Your task to perform on an android device: Go to internet settings Image 0: 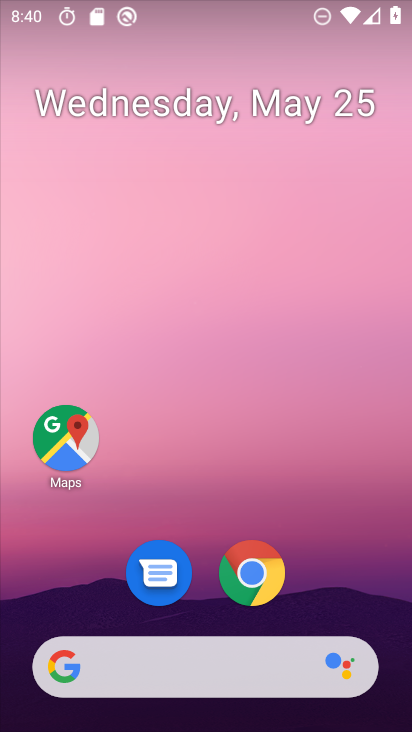
Step 0: drag from (394, 677) to (344, 157)
Your task to perform on an android device: Go to internet settings Image 1: 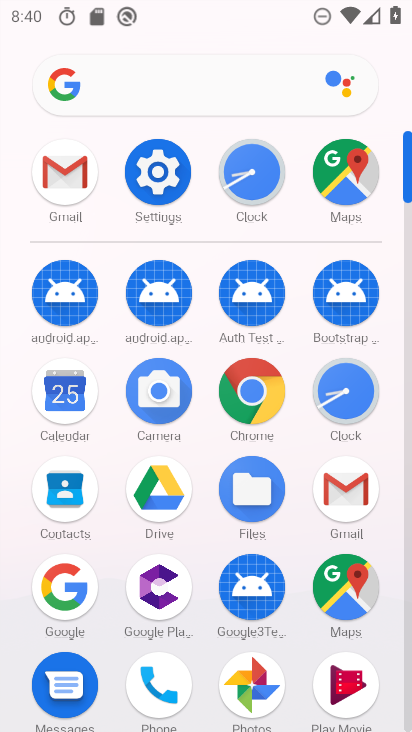
Step 1: click (151, 179)
Your task to perform on an android device: Go to internet settings Image 2: 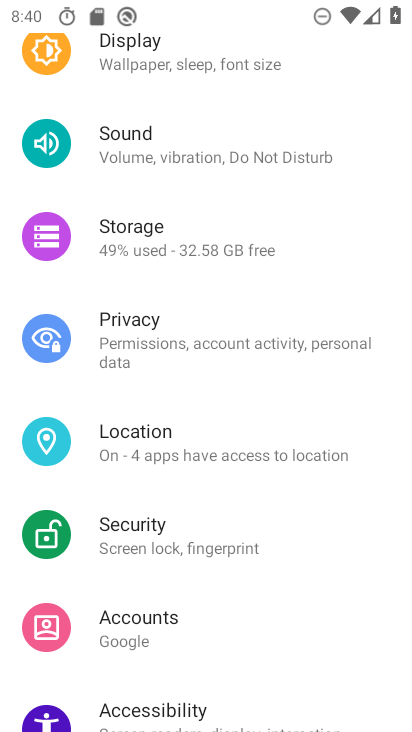
Step 2: drag from (289, 97) to (279, 648)
Your task to perform on an android device: Go to internet settings Image 3: 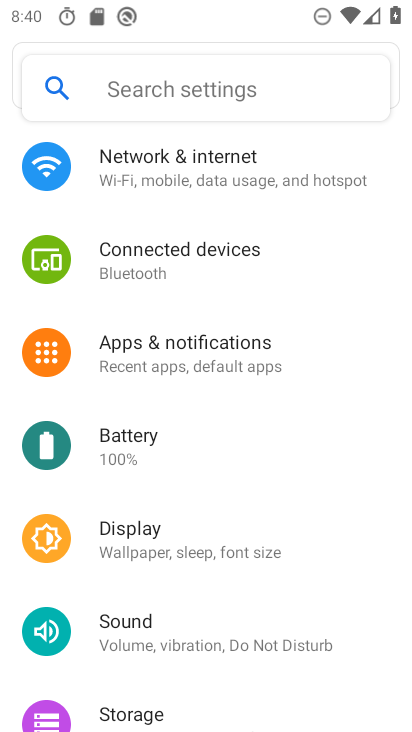
Step 3: click (186, 180)
Your task to perform on an android device: Go to internet settings Image 4: 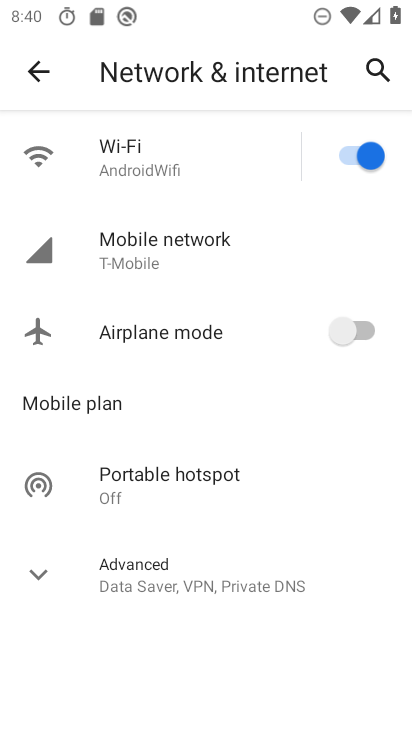
Step 4: click (126, 256)
Your task to perform on an android device: Go to internet settings Image 5: 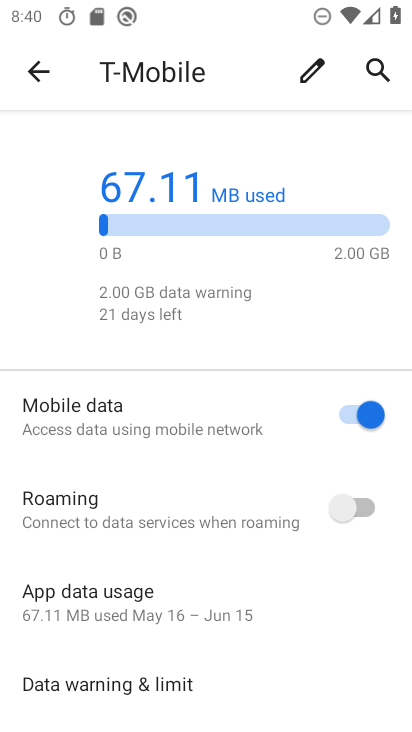
Step 5: drag from (244, 685) to (212, 253)
Your task to perform on an android device: Go to internet settings Image 6: 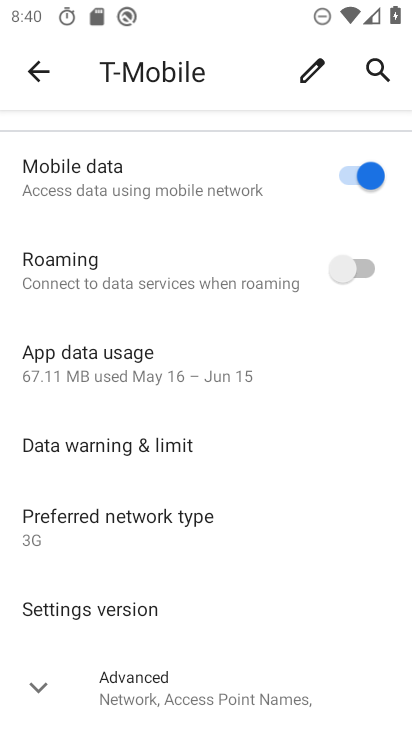
Step 6: drag from (240, 651) to (249, 363)
Your task to perform on an android device: Go to internet settings Image 7: 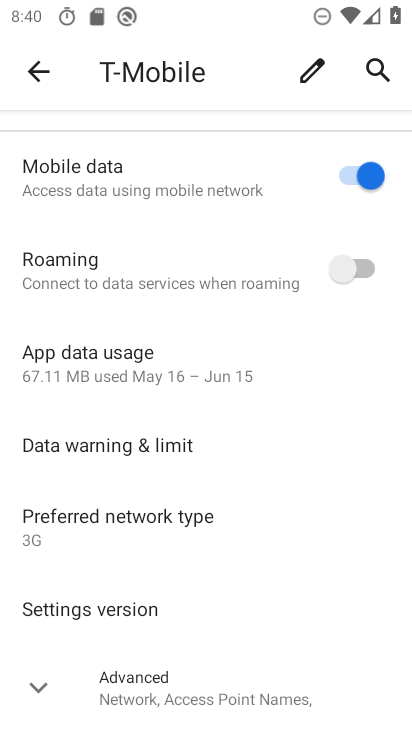
Step 7: click (38, 692)
Your task to perform on an android device: Go to internet settings Image 8: 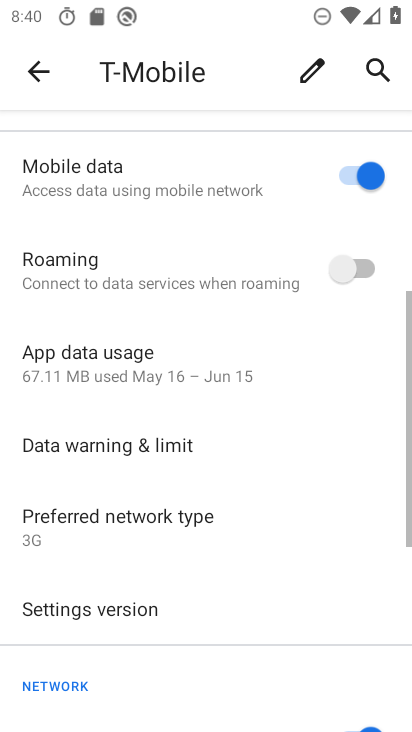
Step 8: task complete